Your task to perform on an android device: turn off wifi Image 0: 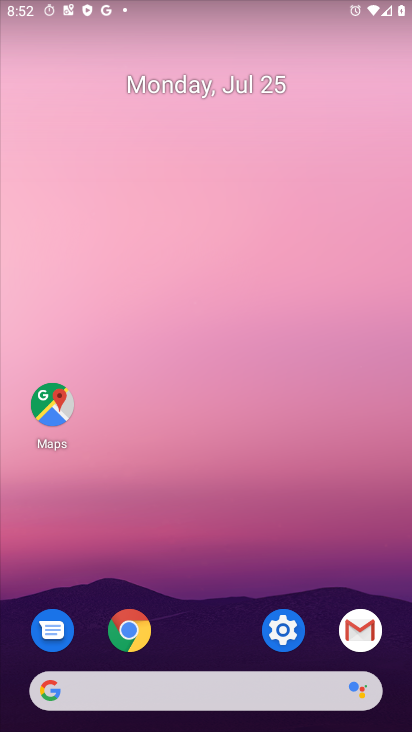
Step 0: click (294, 625)
Your task to perform on an android device: turn off wifi Image 1: 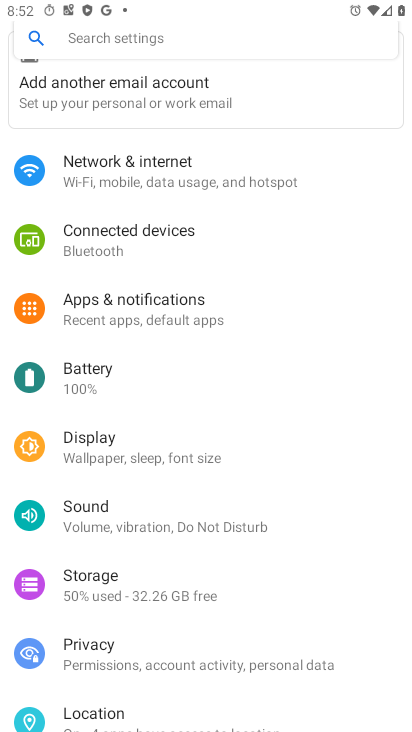
Step 1: click (151, 169)
Your task to perform on an android device: turn off wifi Image 2: 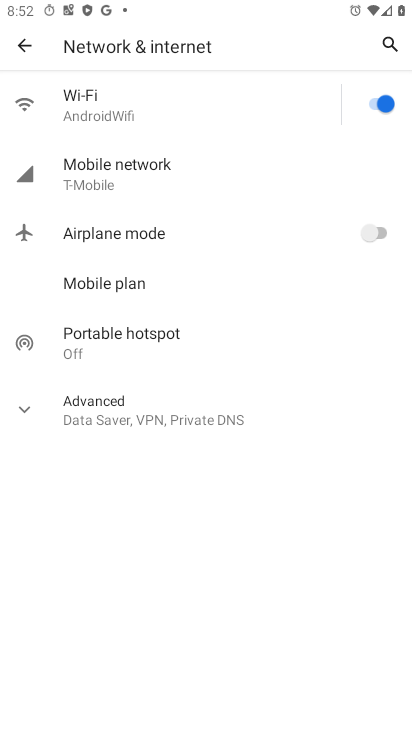
Step 2: click (361, 108)
Your task to perform on an android device: turn off wifi Image 3: 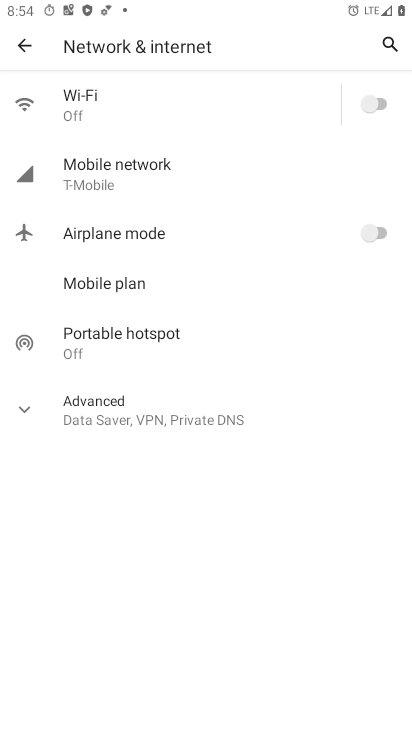
Step 3: task complete